Your task to perform on an android device: set the timer Image 0: 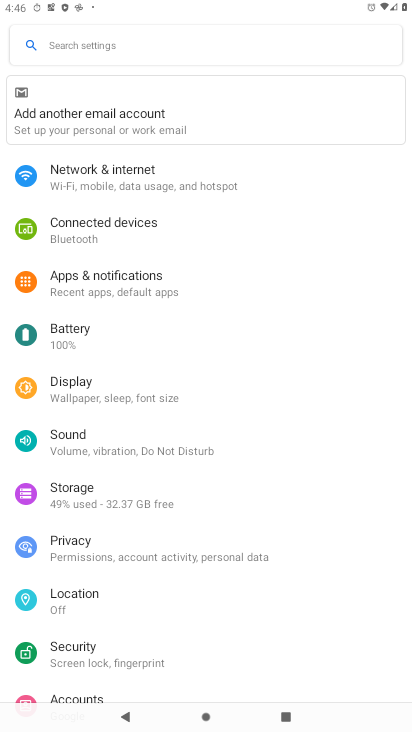
Step 0: press home button
Your task to perform on an android device: set the timer Image 1: 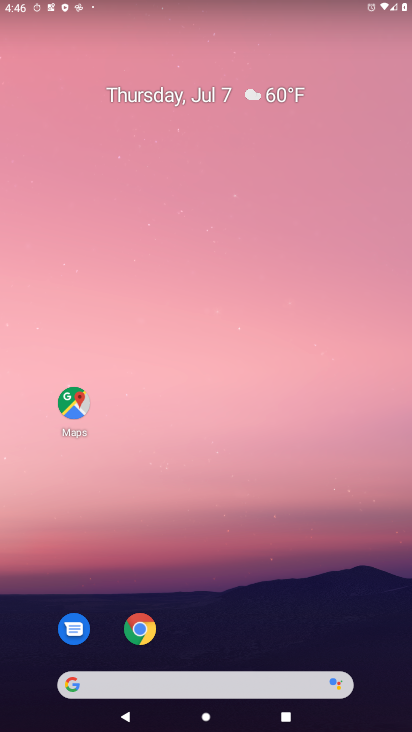
Step 1: drag from (227, 506) to (237, 10)
Your task to perform on an android device: set the timer Image 2: 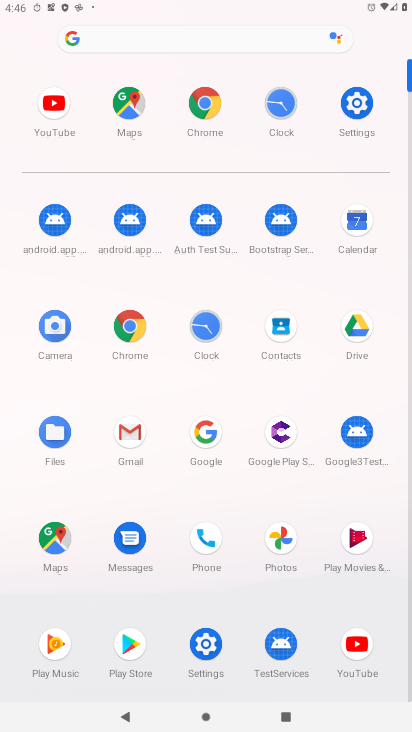
Step 2: click (293, 103)
Your task to perform on an android device: set the timer Image 3: 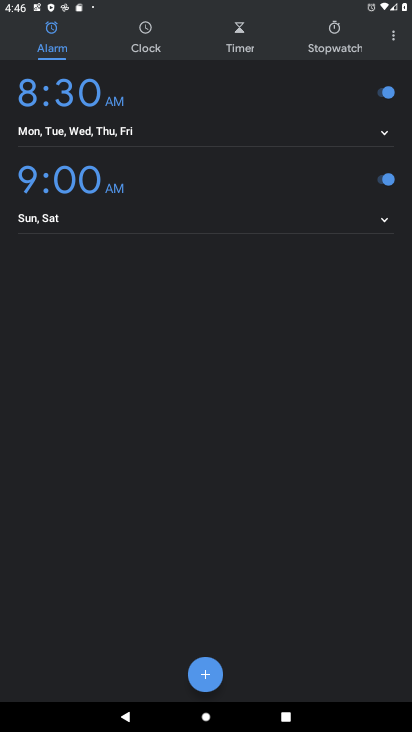
Step 3: click (234, 41)
Your task to perform on an android device: set the timer Image 4: 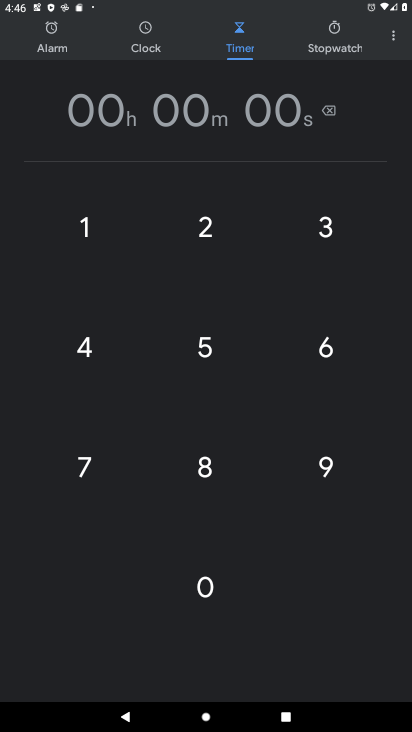
Step 4: click (205, 231)
Your task to perform on an android device: set the timer Image 5: 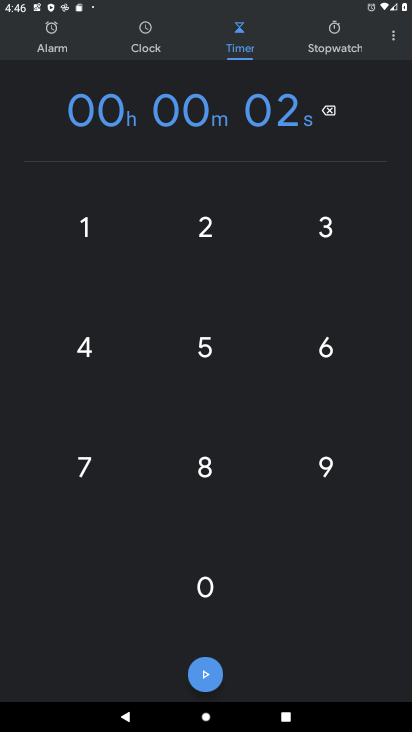
Step 5: click (216, 584)
Your task to perform on an android device: set the timer Image 6: 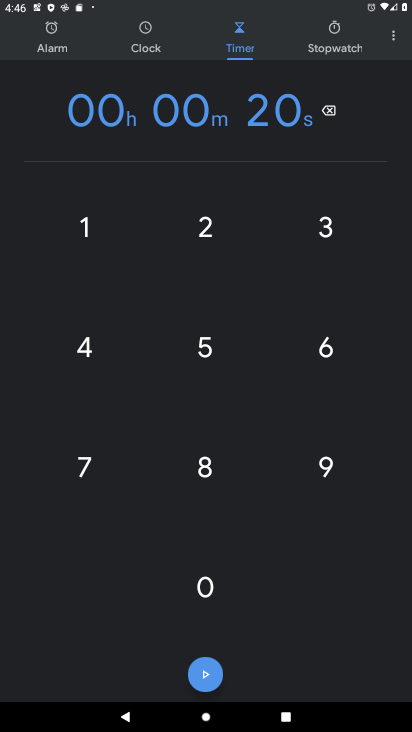
Step 6: click (209, 584)
Your task to perform on an android device: set the timer Image 7: 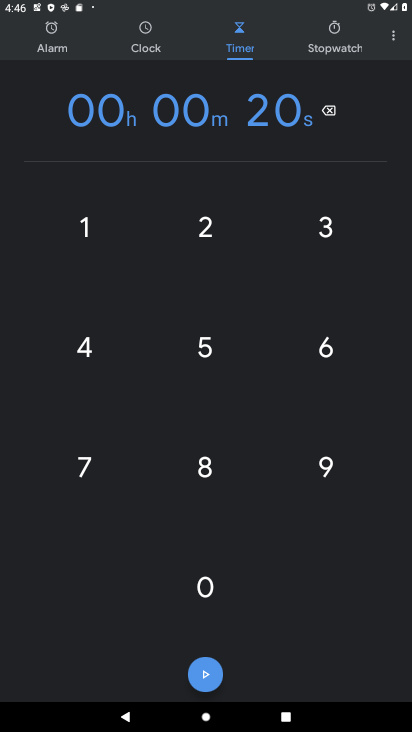
Step 7: click (209, 584)
Your task to perform on an android device: set the timer Image 8: 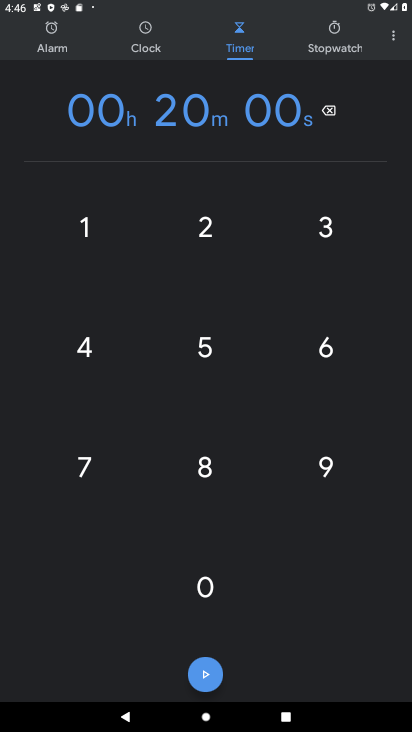
Step 8: click (200, 676)
Your task to perform on an android device: set the timer Image 9: 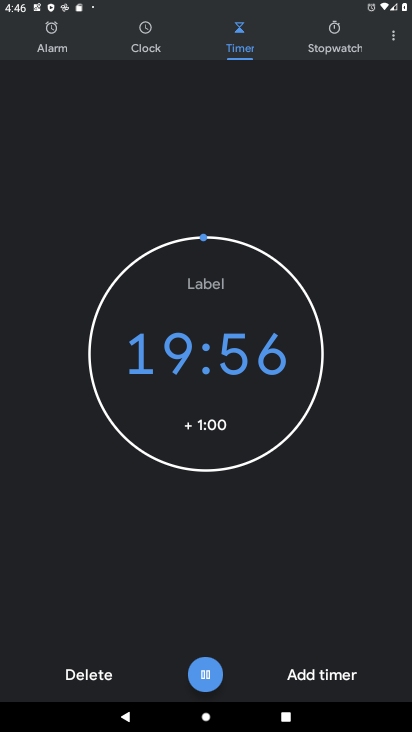
Step 9: click (305, 678)
Your task to perform on an android device: set the timer Image 10: 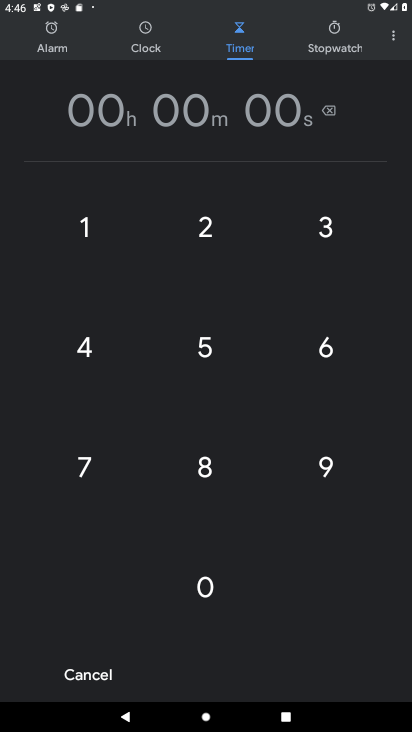
Step 10: task complete